Your task to perform on an android device: Open calendar and show me the fourth week of next month Image 0: 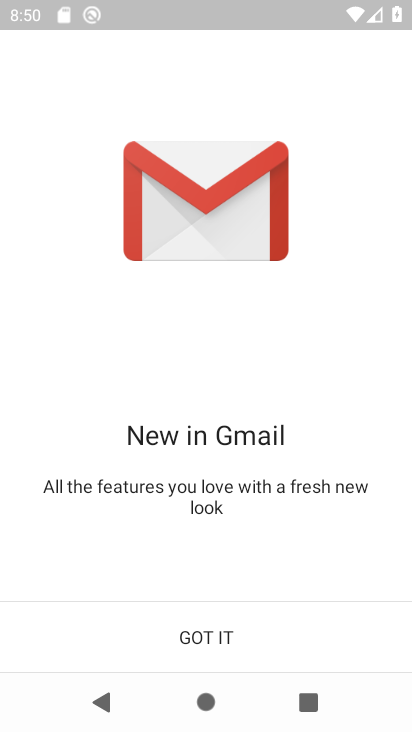
Step 0: press home button
Your task to perform on an android device: Open calendar and show me the fourth week of next month Image 1: 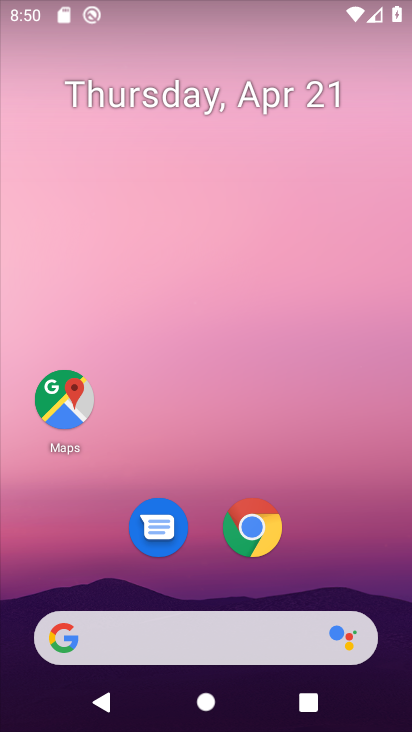
Step 1: drag from (209, 577) to (262, 18)
Your task to perform on an android device: Open calendar and show me the fourth week of next month Image 2: 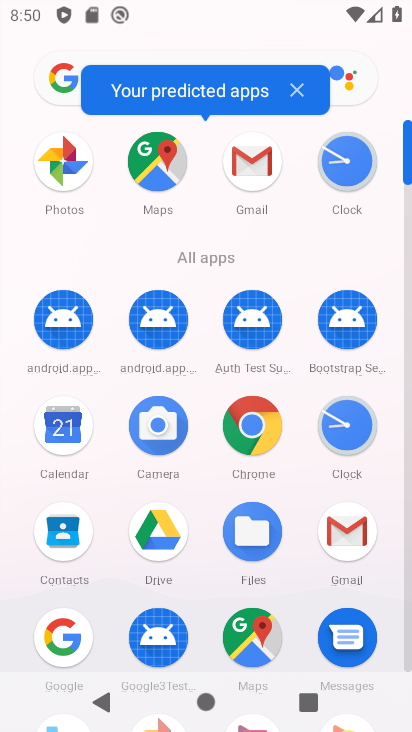
Step 2: click (61, 525)
Your task to perform on an android device: Open calendar and show me the fourth week of next month Image 3: 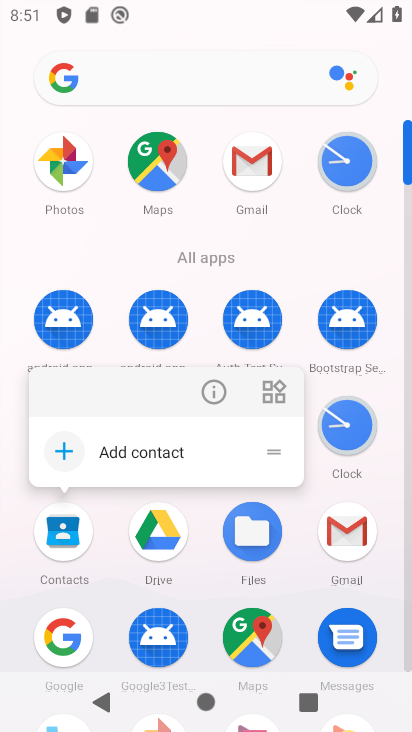
Step 3: click (379, 483)
Your task to perform on an android device: Open calendar and show me the fourth week of next month Image 4: 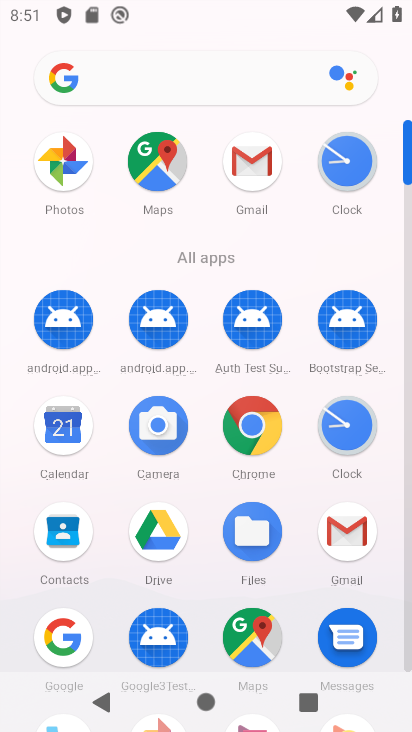
Step 4: click (62, 425)
Your task to perform on an android device: Open calendar and show me the fourth week of next month Image 5: 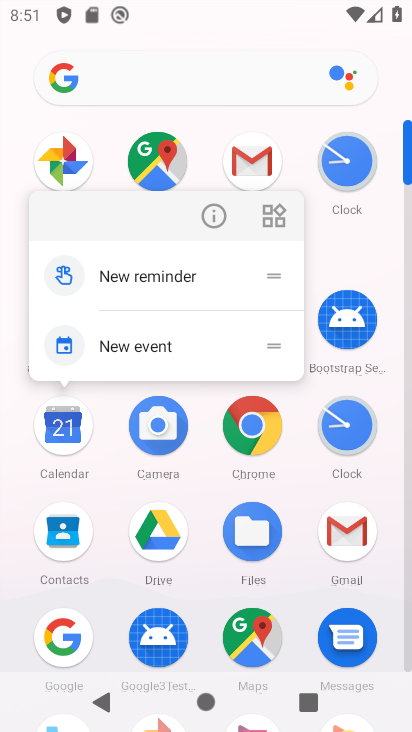
Step 5: click (24, 464)
Your task to perform on an android device: Open calendar and show me the fourth week of next month Image 6: 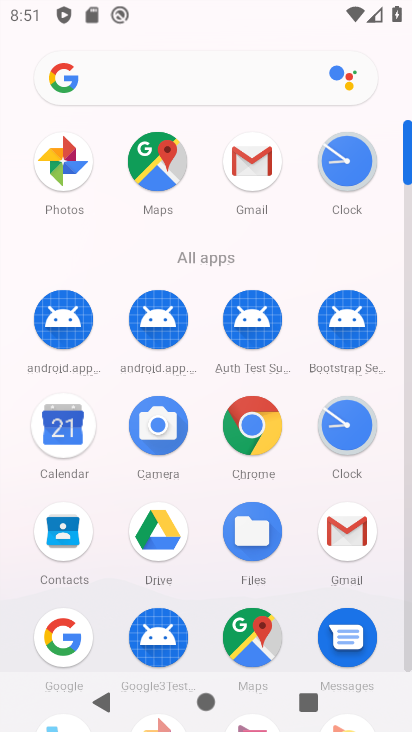
Step 6: click (20, 476)
Your task to perform on an android device: Open calendar and show me the fourth week of next month Image 7: 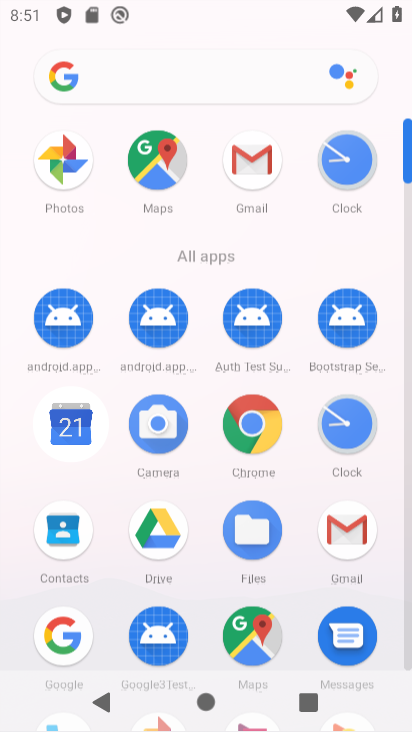
Step 7: click (65, 426)
Your task to perform on an android device: Open calendar and show me the fourth week of next month Image 8: 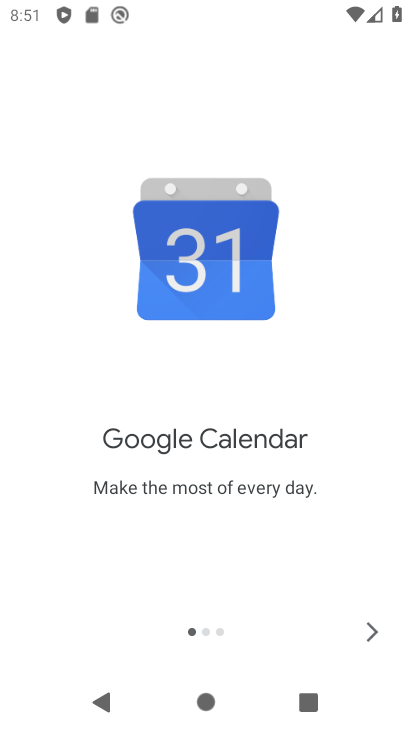
Step 8: click (368, 625)
Your task to perform on an android device: Open calendar and show me the fourth week of next month Image 9: 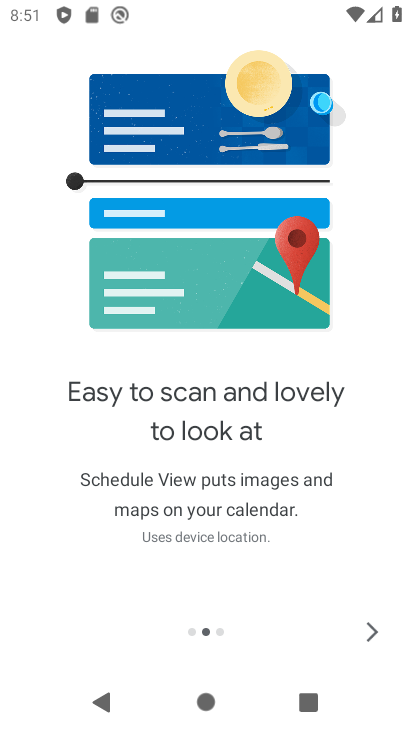
Step 9: click (365, 625)
Your task to perform on an android device: Open calendar and show me the fourth week of next month Image 10: 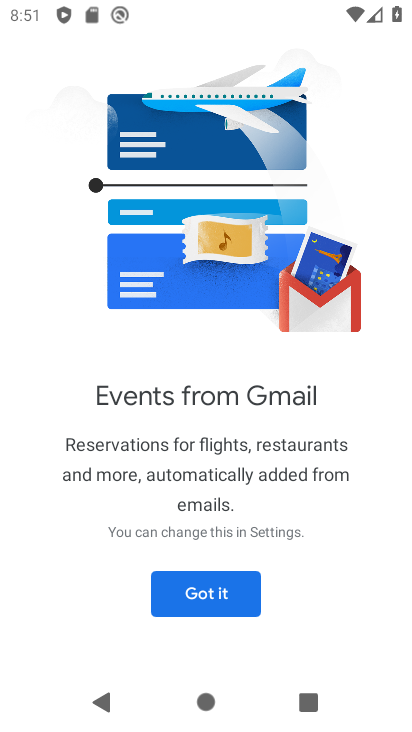
Step 10: click (213, 590)
Your task to perform on an android device: Open calendar and show me the fourth week of next month Image 11: 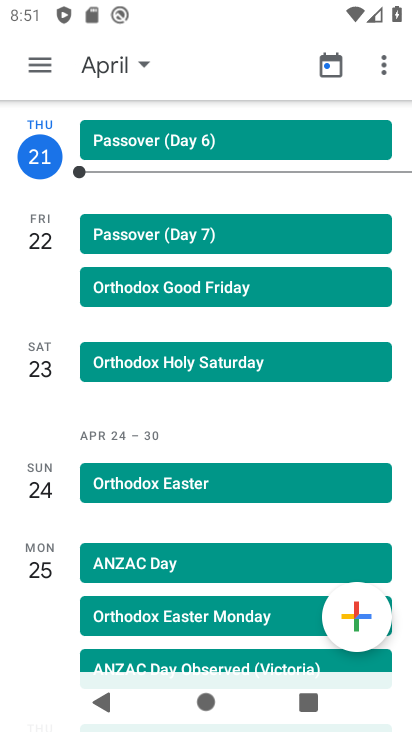
Step 11: click (36, 63)
Your task to perform on an android device: Open calendar and show me the fourth week of next month Image 12: 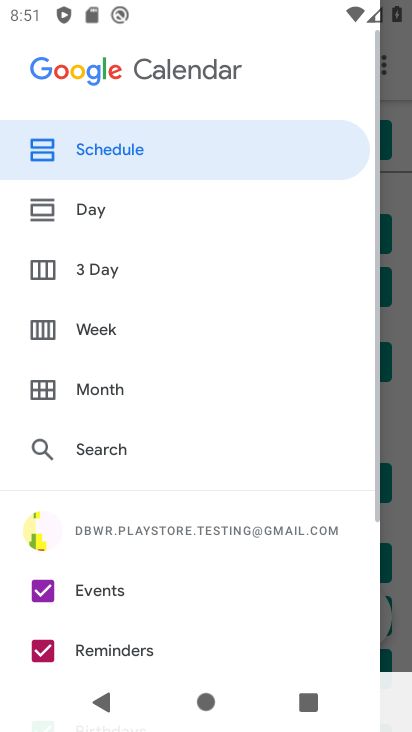
Step 12: click (127, 329)
Your task to perform on an android device: Open calendar and show me the fourth week of next month Image 13: 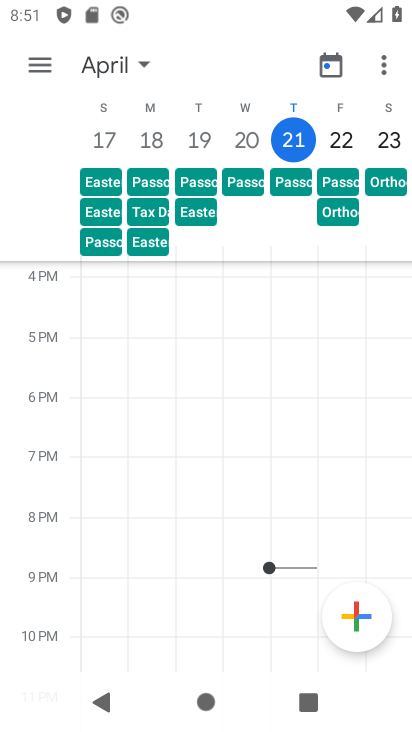
Step 13: drag from (384, 136) to (95, 138)
Your task to perform on an android device: Open calendar and show me the fourth week of next month Image 14: 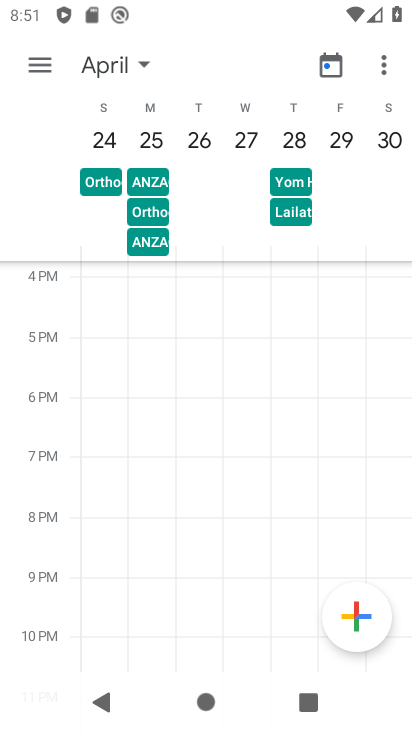
Step 14: drag from (393, 137) to (82, 131)
Your task to perform on an android device: Open calendar and show me the fourth week of next month Image 15: 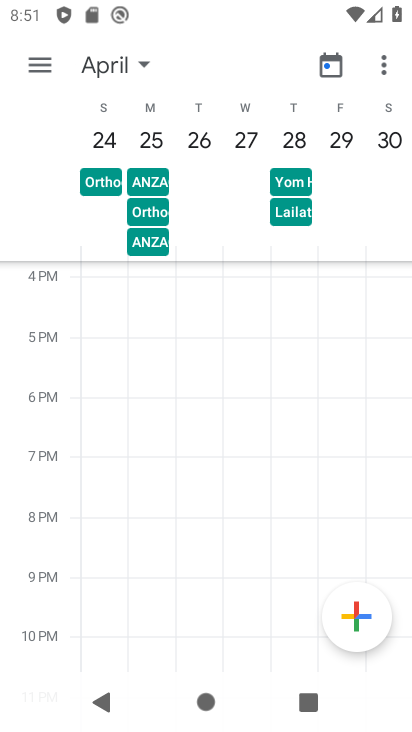
Step 15: drag from (387, 136) to (103, 136)
Your task to perform on an android device: Open calendar and show me the fourth week of next month Image 16: 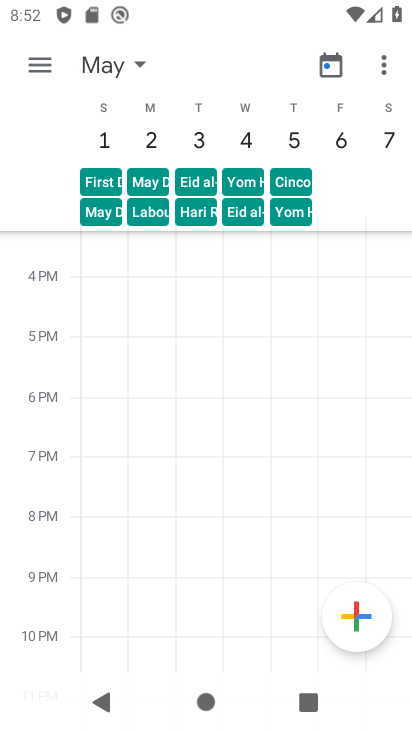
Step 16: drag from (391, 138) to (25, 135)
Your task to perform on an android device: Open calendar and show me the fourth week of next month Image 17: 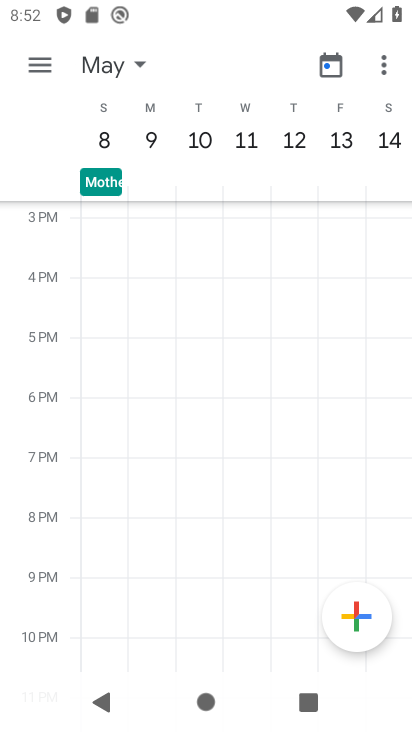
Step 17: drag from (389, 141) to (79, 136)
Your task to perform on an android device: Open calendar and show me the fourth week of next month Image 18: 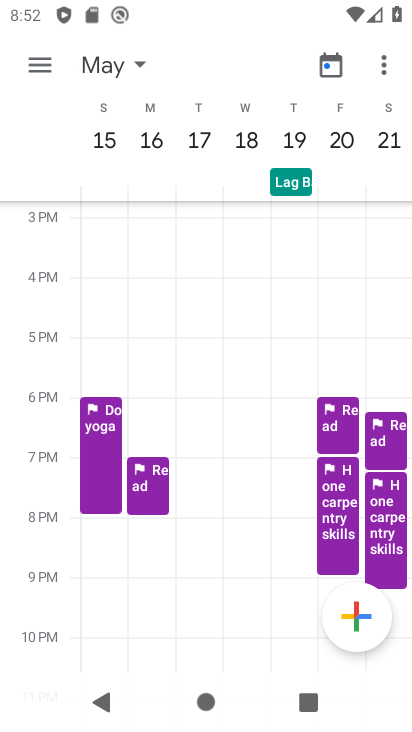
Step 18: drag from (385, 139) to (0, 158)
Your task to perform on an android device: Open calendar and show me the fourth week of next month Image 19: 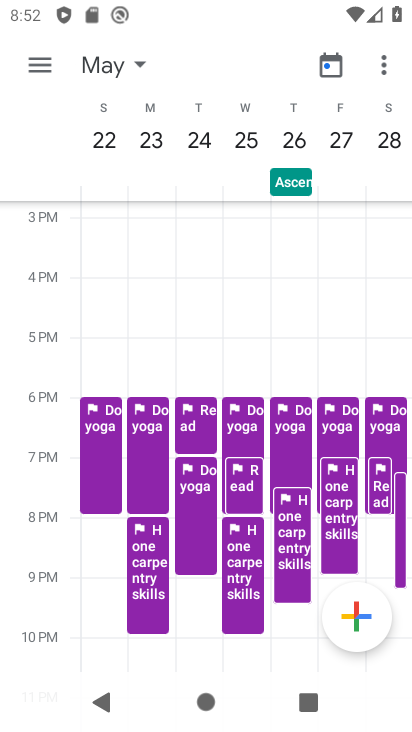
Step 19: click (97, 133)
Your task to perform on an android device: Open calendar and show me the fourth week of next month Image 20: 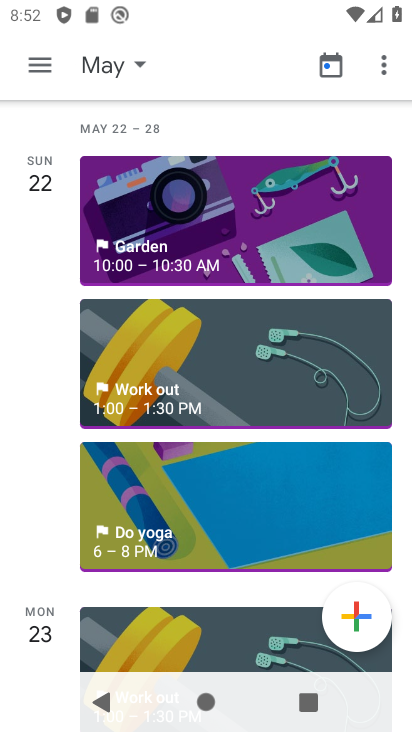
Step 20: task complete